Your task to perform on an android device: check data usage Image 0: 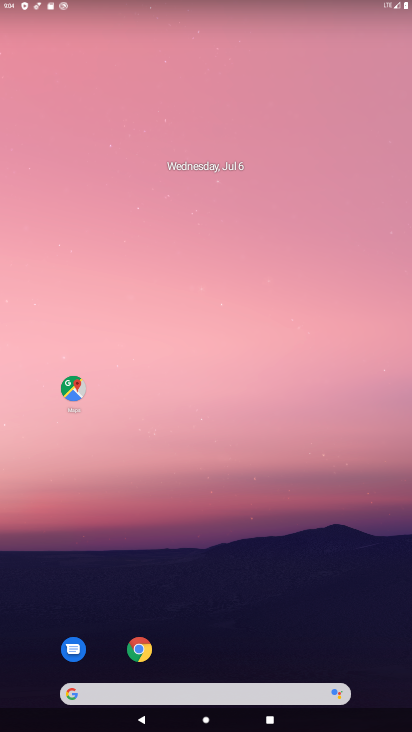
Step 0: drag from (225, 679) to (117, 174)
Your task to perform on an android device: check data usage Image 1: 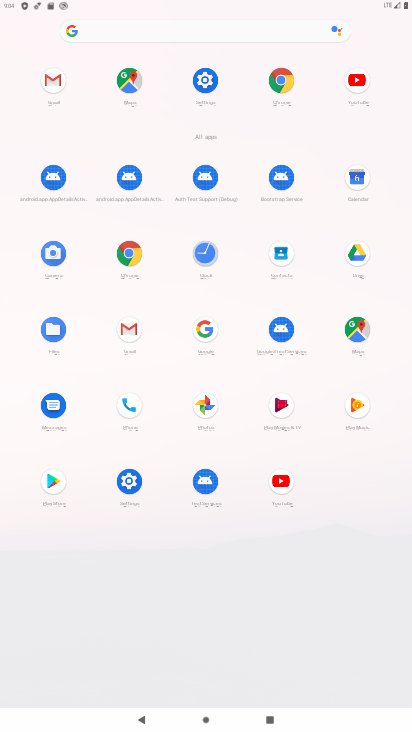
Step 1: click (211, 76)
Your task to perform on an android device: check data usage Image 2: 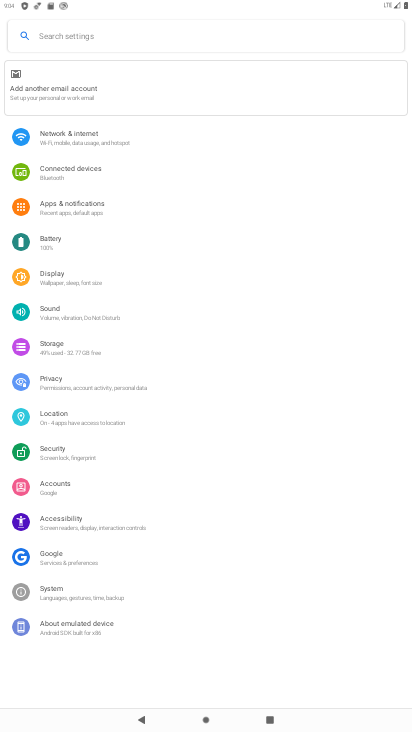
Step 2: click (105, 135)
Your task to perform on an android device: check data usage Image 3: 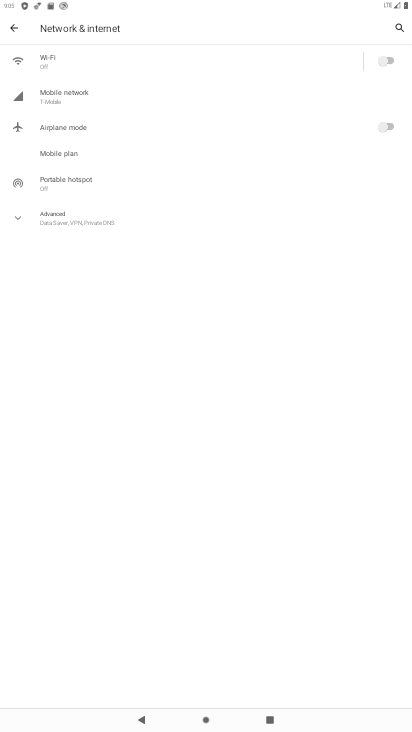
Step 3: click (63, 87)
Your task to perform on an android device: check data usage Image 4: 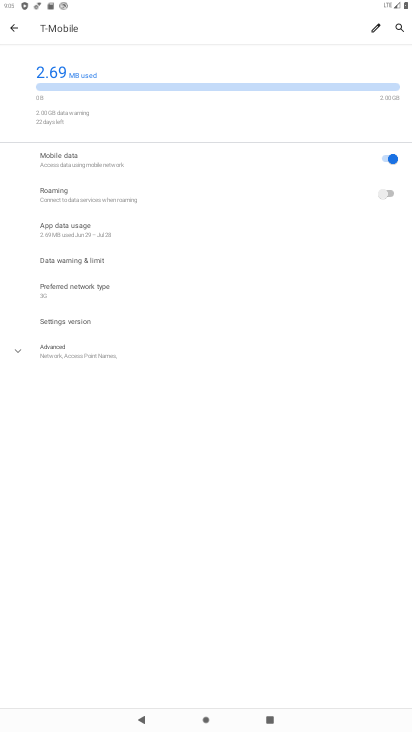
Step 4: task complete